Your task to perform on an android device: Open settings on Google Maps Image 0: 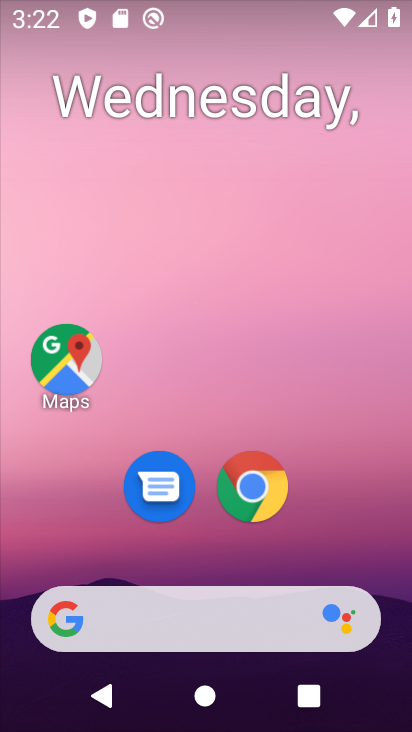
Step 0: click (74, 362)
Your task to perform on an android device: Open settings on Google Maps Image 1: 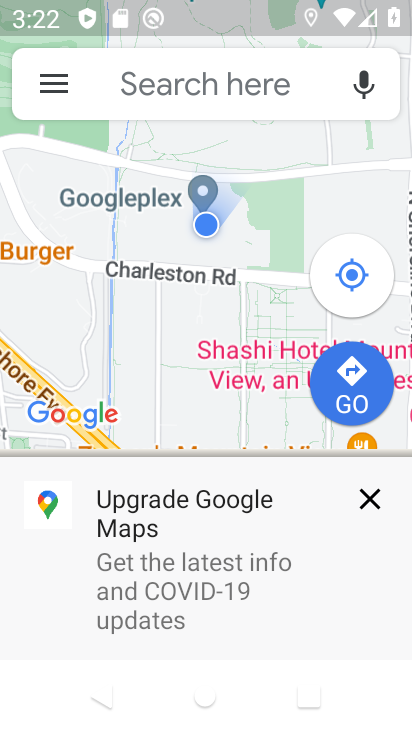
Step 1: click (369, 498)
Your task to perform on an android device: Open settings on Google Maps Image 2: 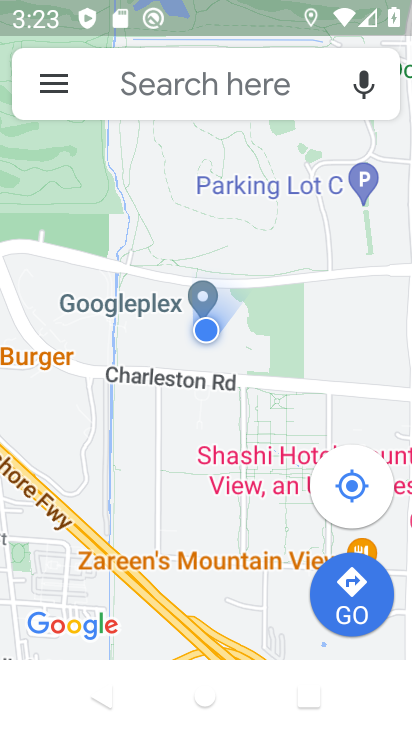
Step 2: click (47, 80)
Your task to perform on an android device: Open settings on Google Maps Image 3: 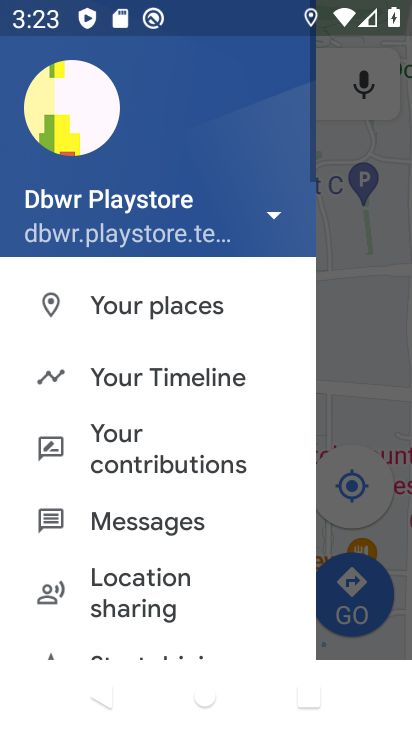
Step 3: drag from (191, 625) to (188, 169)
Your task to perform on an android device: Open settings on Google Maps Image 4: 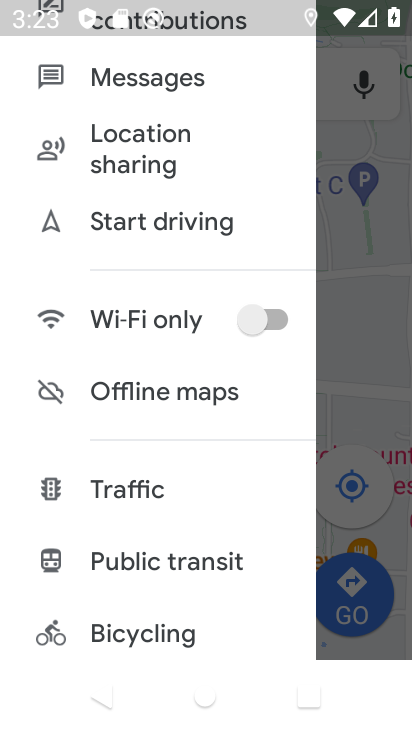
Step 4: drag from (162, 647) to (178, 230)
Your task to perform on an android device: Open settings on Google Maps Image 5: 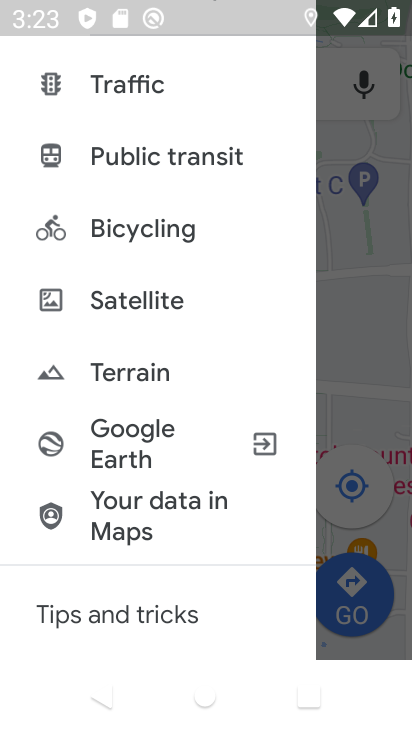
Step 5: drag from (155, 628) to (155, 239)
Your task to perform on an android device: Open settings on Google Maps Image 6: 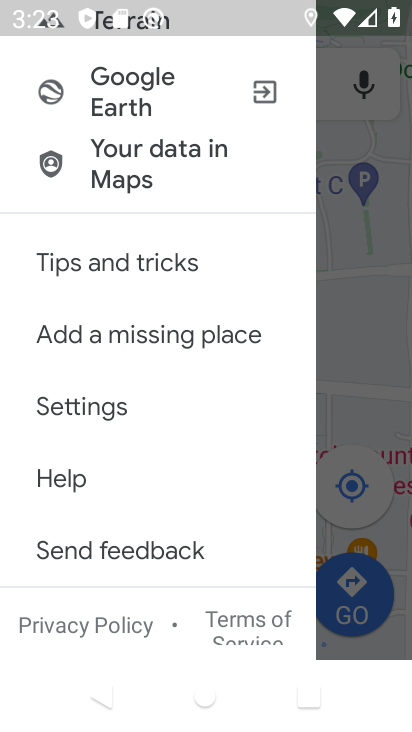
Step 6: click (111, 419)
Your task to perform on an android device: Open settings on Google Maps Image 7: 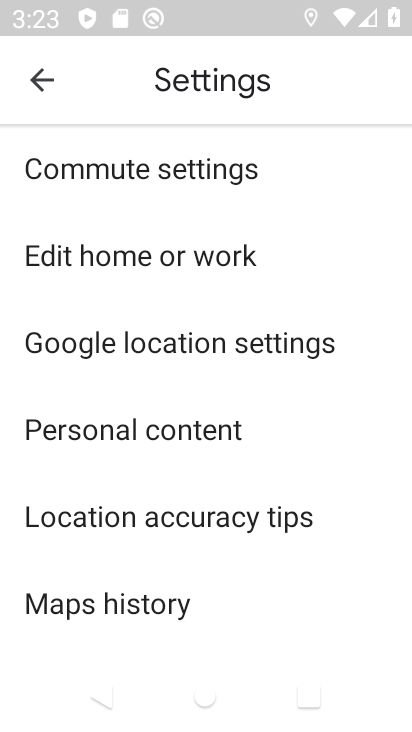
Step 7: task complete